Your task to perform on an android device: change timer sound Image 0: 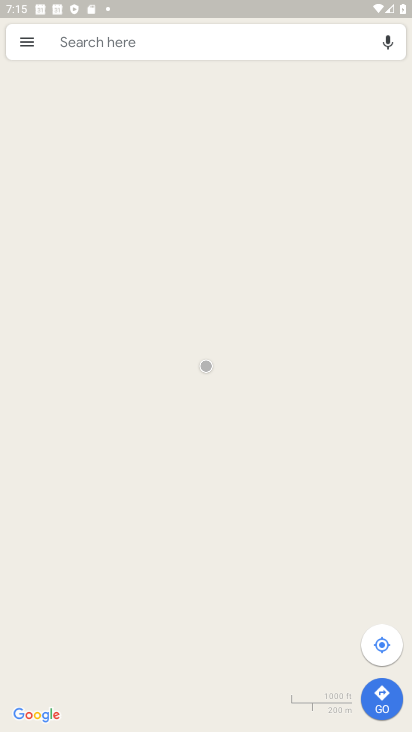
Step 0: press home button
Your task to perform on an android device: change timer sound Image 1: 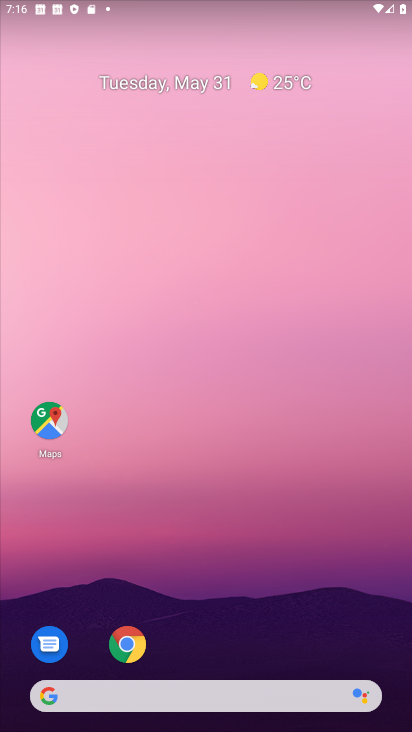
Step 1: drag from (242, 718) to (264, 315)
Your task to perform on an android device: change timer sound Image 2: 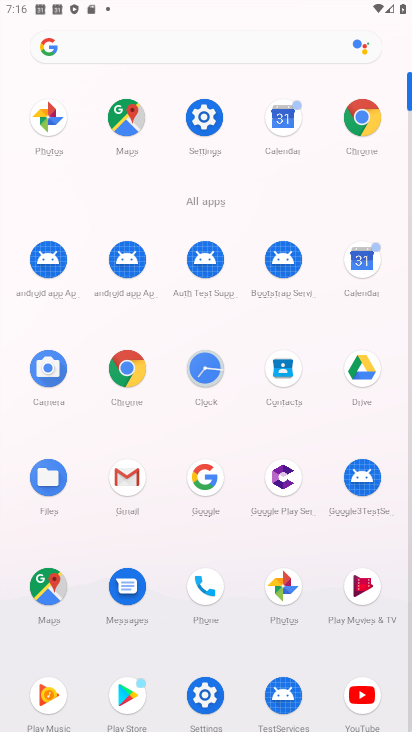
Step 2: click (200, 365)
Your task to perform on an android device: change timer sound Image 3: 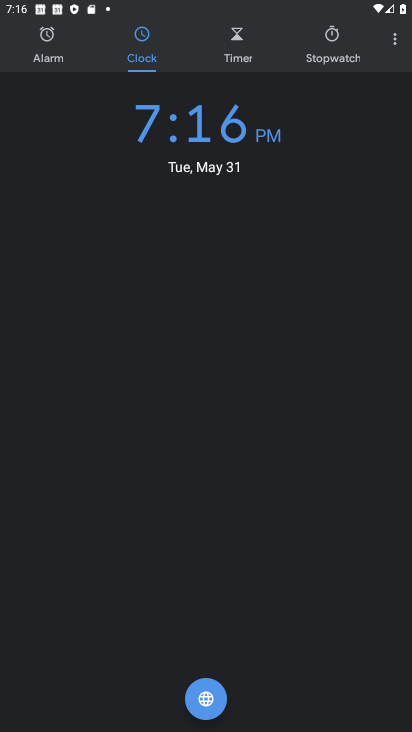
Step 3: click (397, 49)
Your task to perform on an android device: change timer sound Image 4: 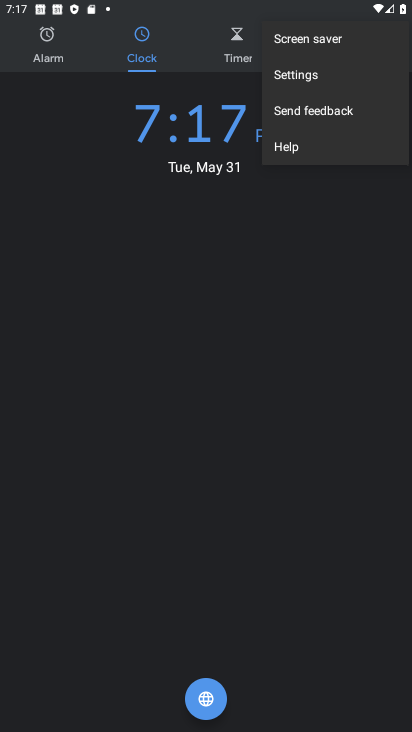
Step 4: click (321, 76)
Your task to perform on an android device: change timer sound Image 5: 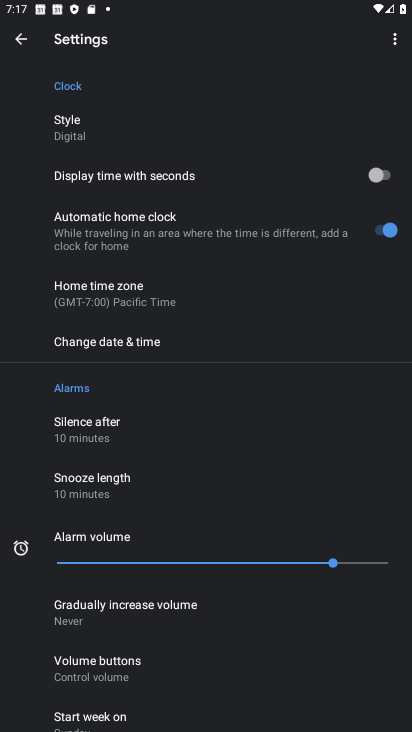
Step 5: drag from (154, 616) to (198, 401)
Your task to perform on an android device: change timer sound Image 6: 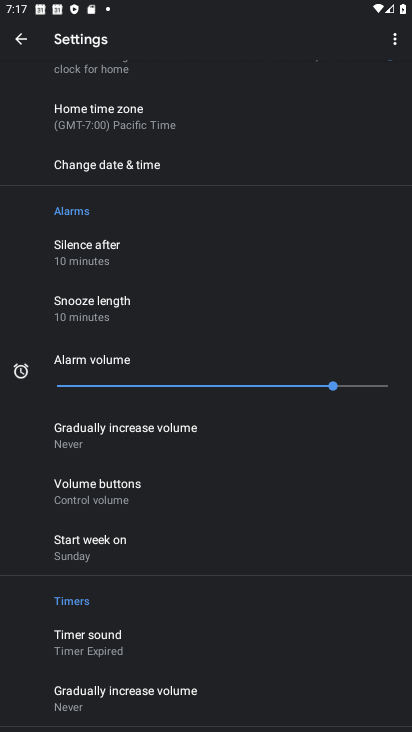
Step 6: drag from (156, 599) to (187, 406)
Your task to perform on an android device: change timer sound Image 7: 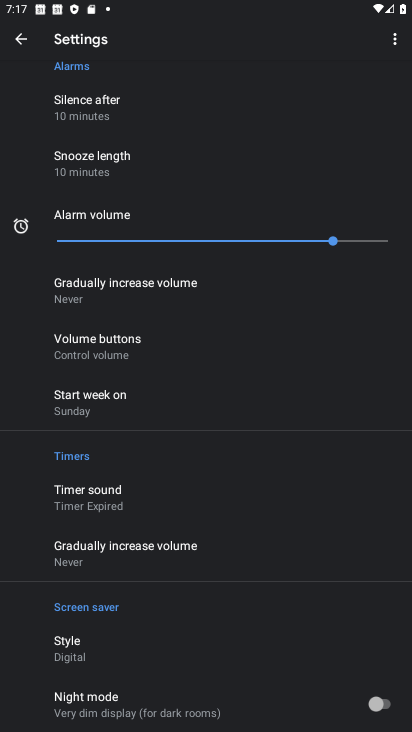
Step 7: click (97, 496)
Your task to perform on an android device: change timer sound Image 8: 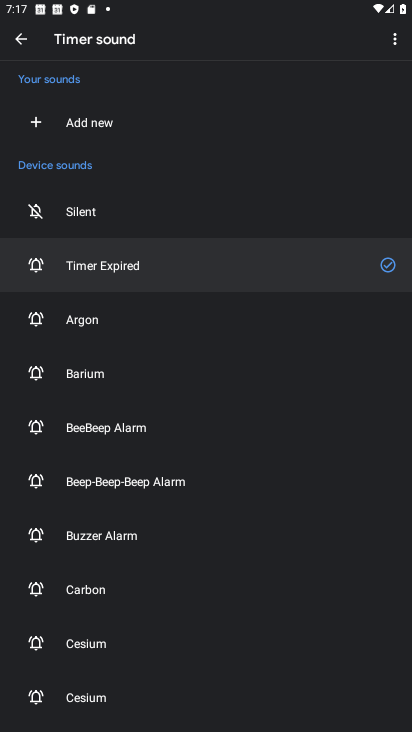
Step 8: click (67, 430)
Your task to perform on an android device: change timer sound Image 9: 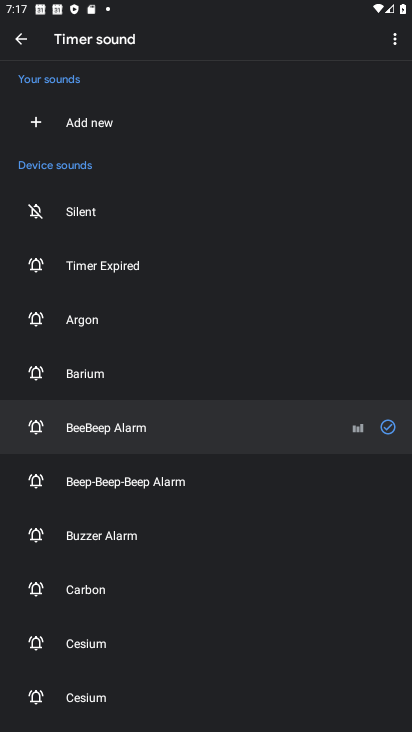
Step 9: task complete